Your task to perform on an android device: Play the last video I watched on Youtube Image 0: 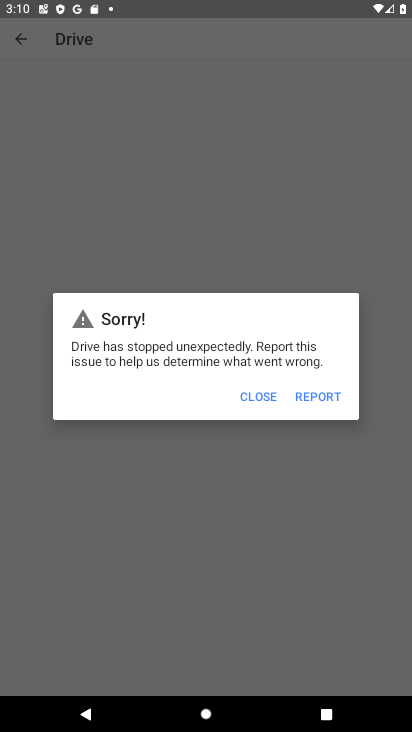
Step 0: press home button
Your task to perform on an android device: Play the last video I watched on Youtube Image 1: 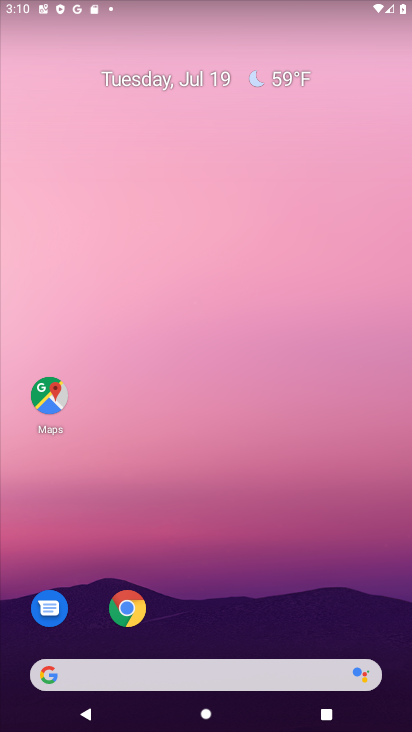
Step 1: drag from (285, 620) to (231, 140)
Your task to perform on an android device: Play the last video I watched on Youtube Image 2: 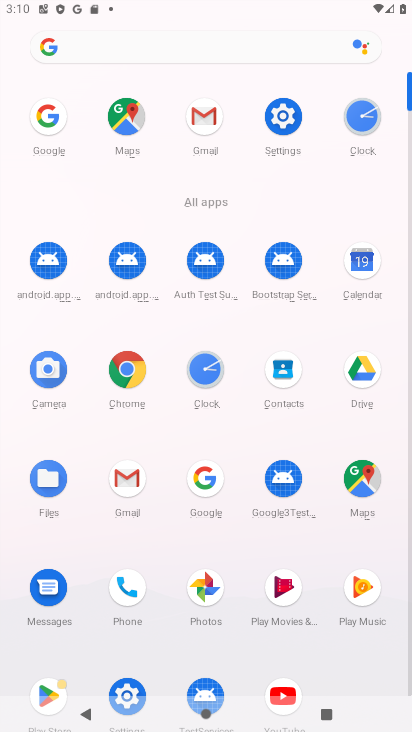
Step 2: click (283, 692)
Your task to perform on an android device: Play the last video I watched on Youtube Image 3: 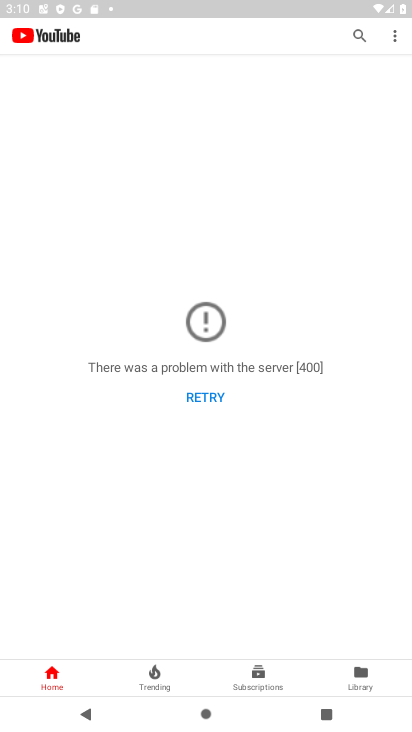
Step 3: click (352, 684)
Your task to perform on an android device: Play the last video I watched on Youtube Image 4: 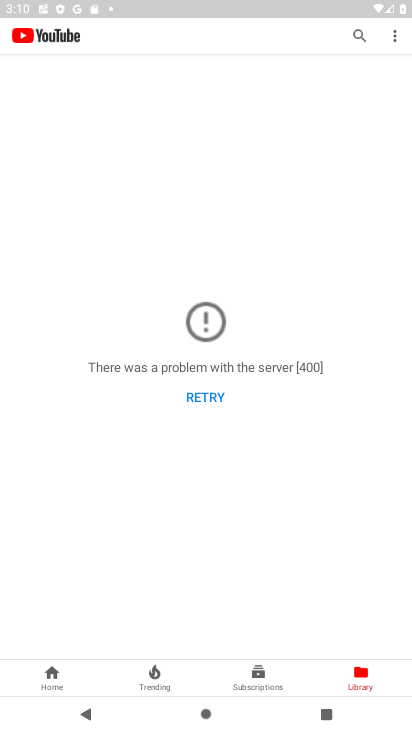
Step 4: task complete